Your task to perform on an android device: turn on location history Image 0: 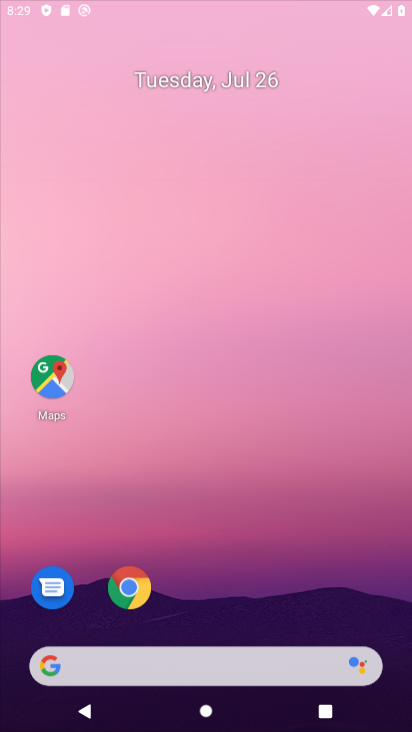
Step 0: click (293, 155)
Your task to perform on an android device: turn on location history Image 1: 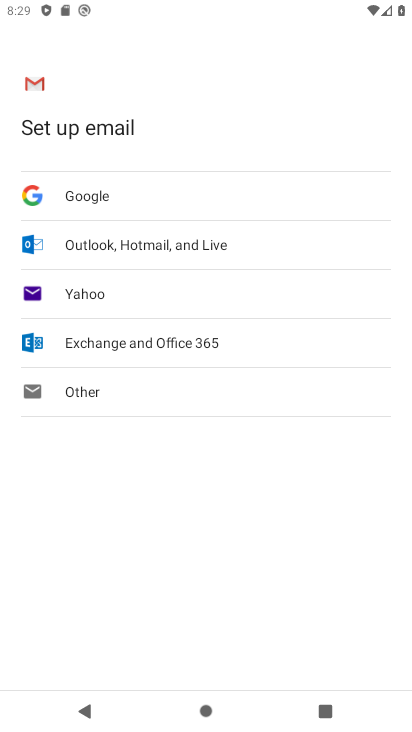
Step 1: press back button
Your task to perform on an android device: turn on location history Image 2: 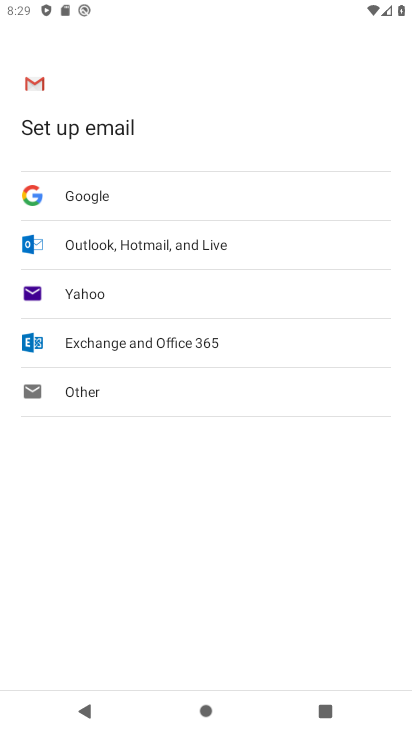
Step 2: press back button
Your task to perform on an android device: turn on location history Image 3: 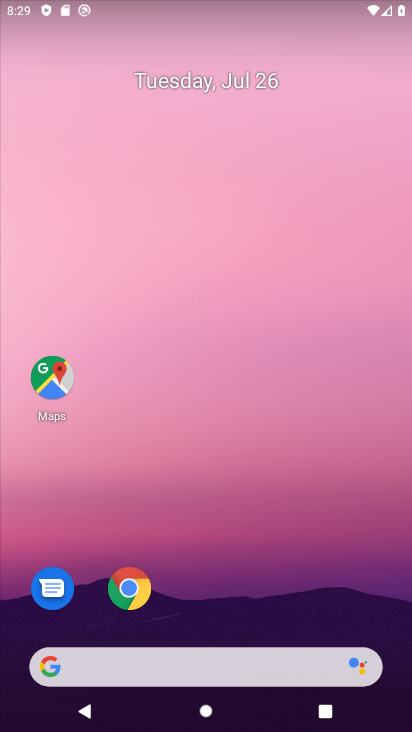
Step 3: drag from (280, 588) to (277, 110)
Your task to perform on an android device: turn on location history Image 4: 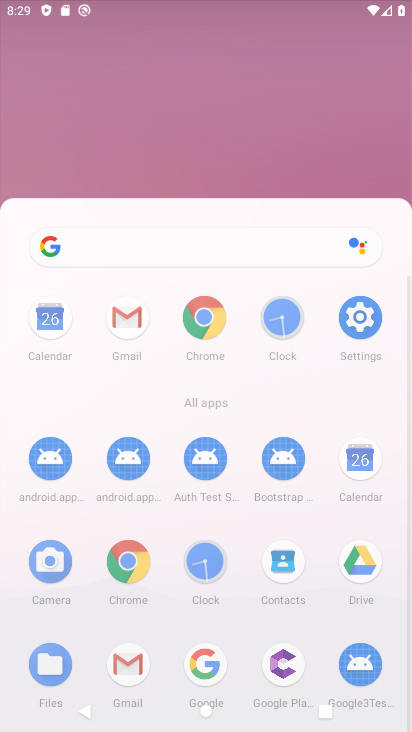
Step 4: drag from (257, 490) to (243, 20)
Your task to perform on an android device: turn on location history Image 5: 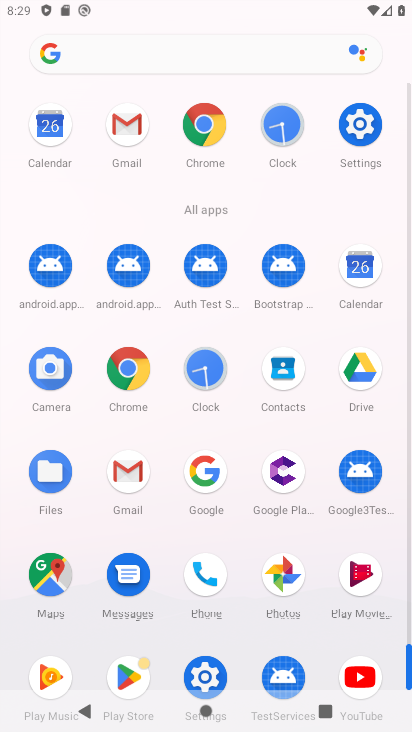
Step 5: drag from (178, 423) to (178, 94)
Your task to perform on an android device: turn on location history Image 6: 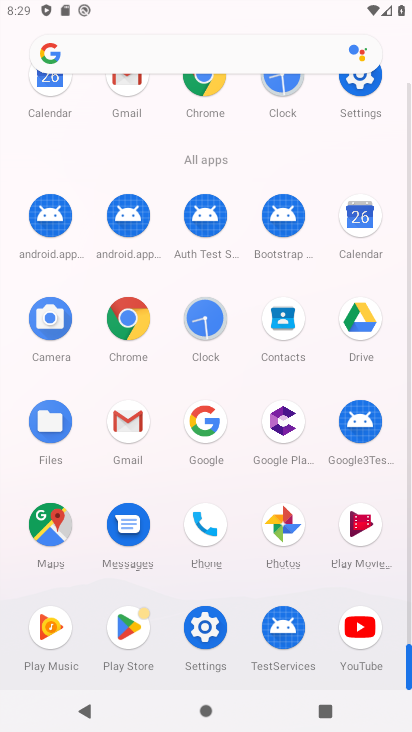
Step 6: click (199, 627)
Your task to perform on an android device: turn on location history Image 7: 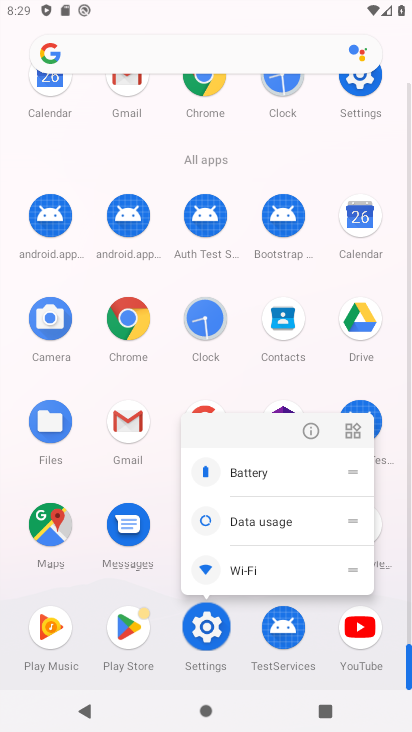
Step 7: click (207, 629)
Your task to perform on an android device: turn on location history Image 8: 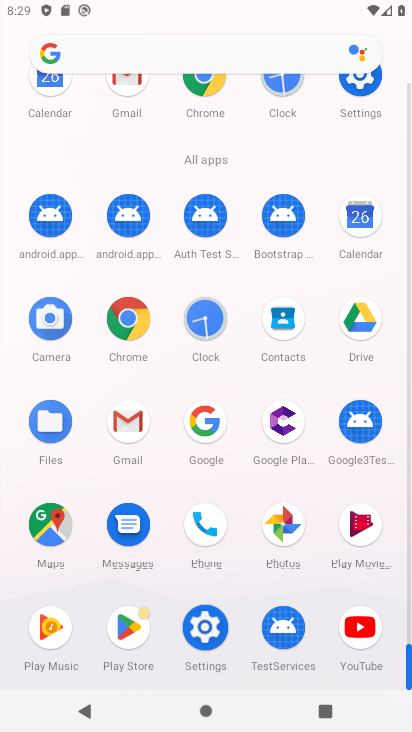
Step 8: click (207, 629)
Your task to perform on an android device: turn on location history Image 9: 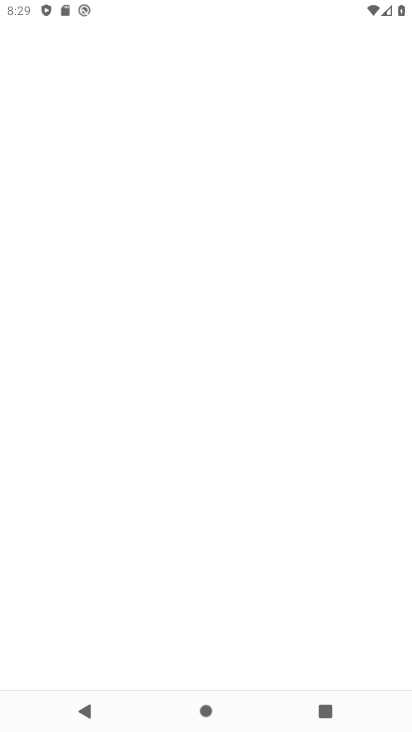
Step 9: click (213, 633)
Your task to perform on an android device: turn on location history Image 10: 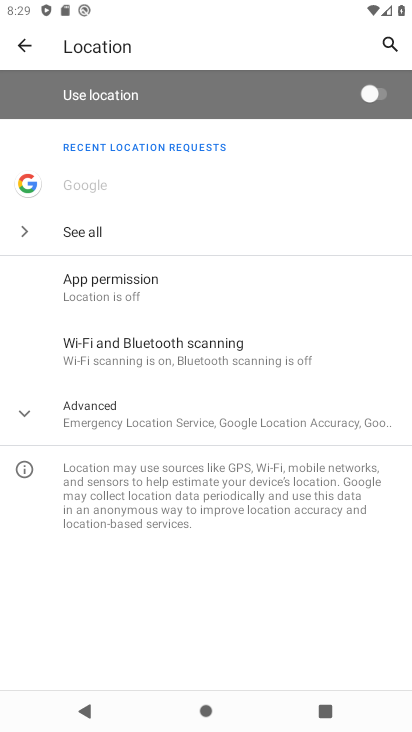
Step 10: click (102, 414)
Your task to perform on an android device: turn on location history Image 11: 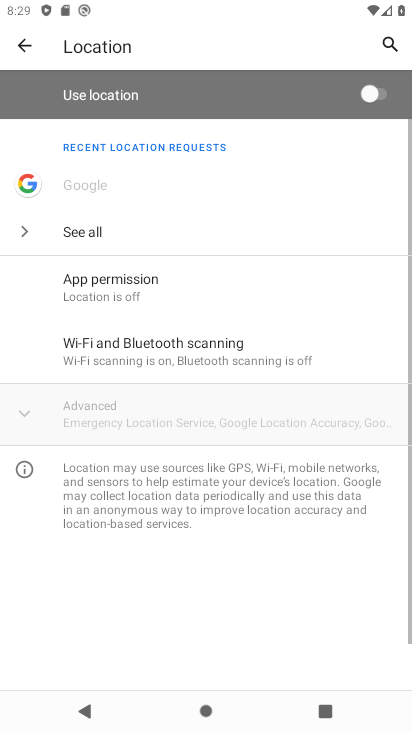
Step 11: click (101, 414)
Your task to perform on an android device: turn on location history Image 12: 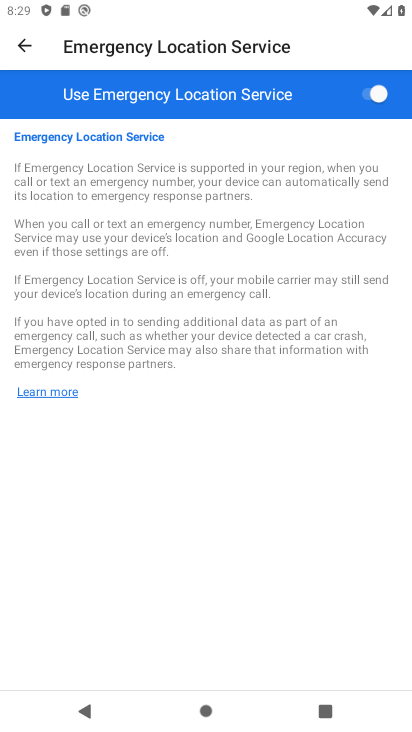
Step 12: click (22, 45)
Your task to perform on an android device: turn on location history Image 13: 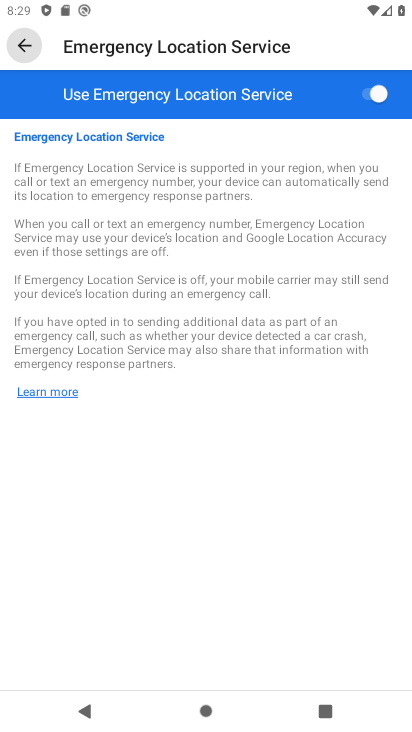
Step 13: click (22, 47)
Your task to perform on an android device: turn on location history Image 14: 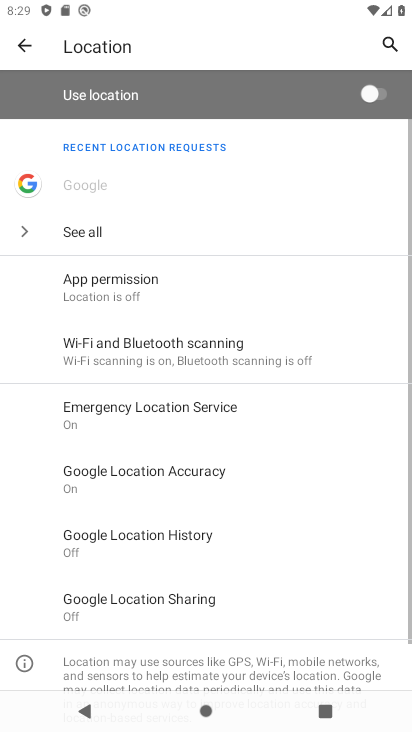
Step 14: click (162, 532)
Your task to perform on an android device: turn on location history Image 15: 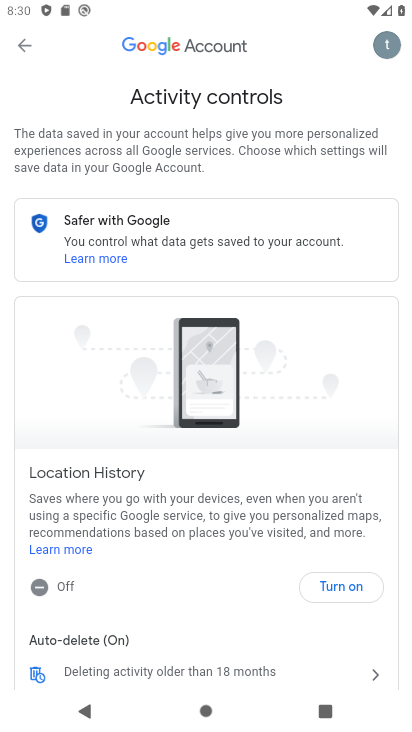
Step 15: task complete